Your task to perform on an android device: allow cookies in the chrome app Image 0: 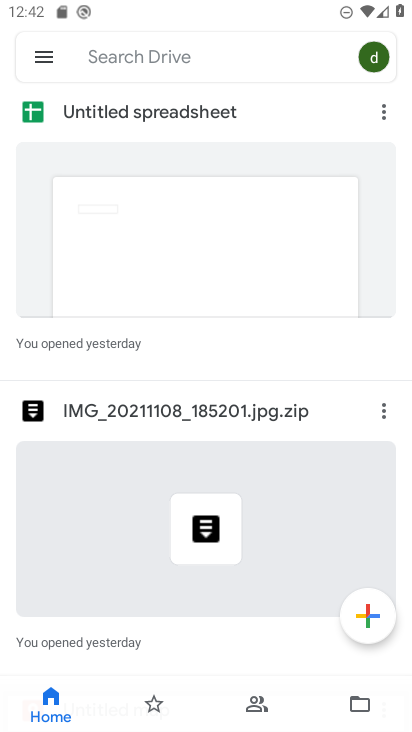
Step 0: press home button
Your task to perform on an android device: allow cookies in the chrome app Image 1: 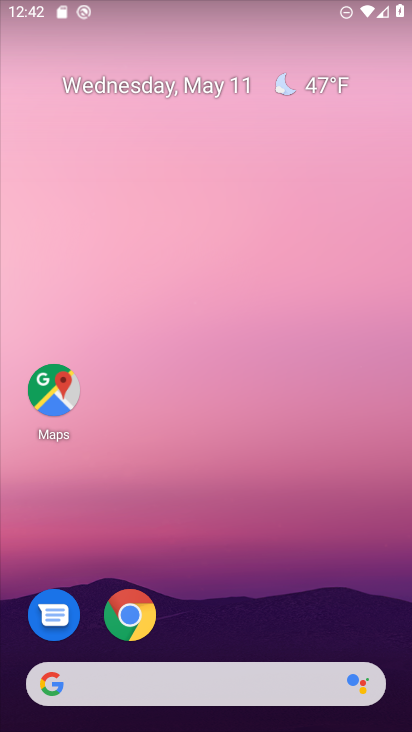
Step 1: drag from (334, 601) to (323, 207)
Your task to perform on an android device: allow cookies in the chrome app Image 2: 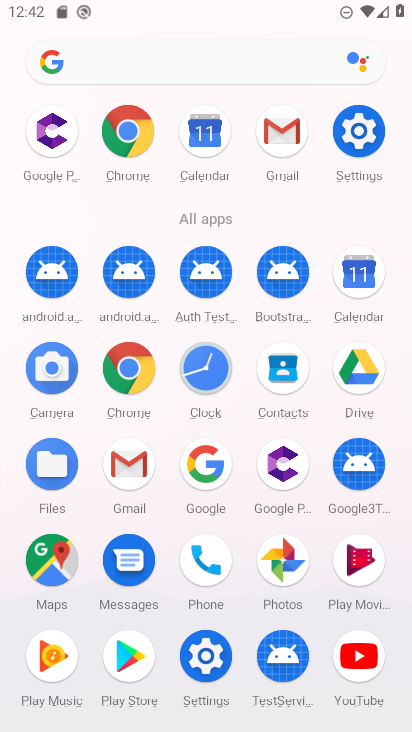
Step 2: click (128, 160)
Your task to perform on an android device: allow cookies in the chrome app Image 3: 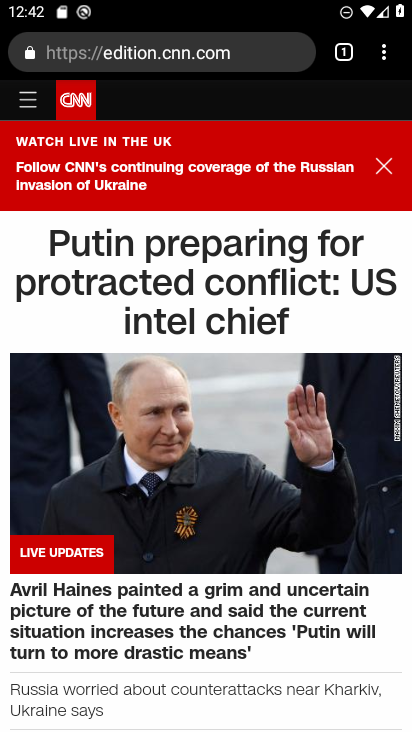
Step 3: drag from (387, 46) to (216, 592)
Your task to perform on an android device: allow cookies in the chrome app Image 4: 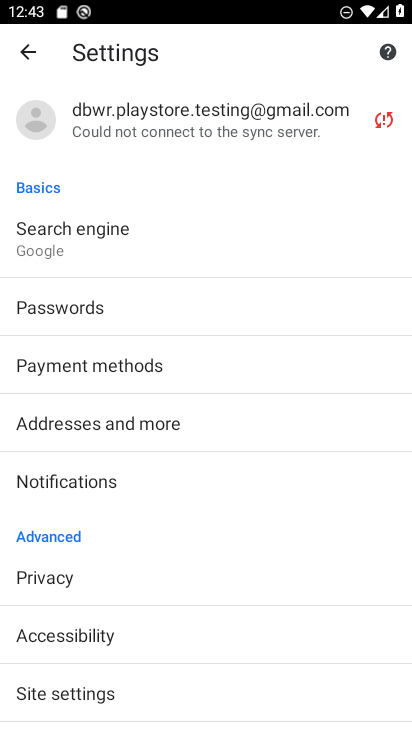
Step 4: drag from (212, 591) to (166, 254)
Your task to perform on an android device: allow cookies in the chrome app Image 5: 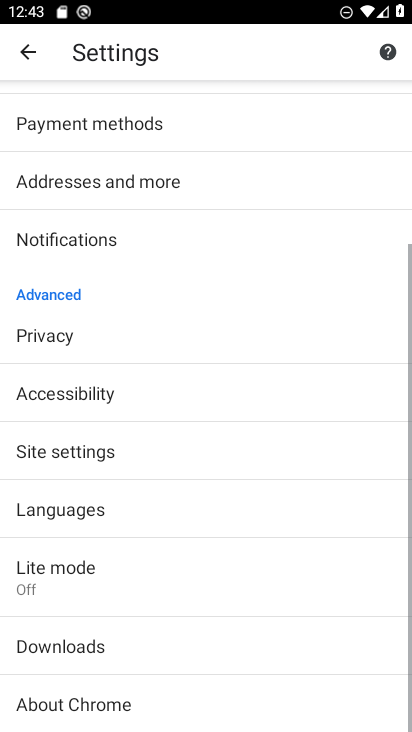
Step 5: click (76, 462)
Your task to perform on an android device: allow cookies in the chrome app Image 6: 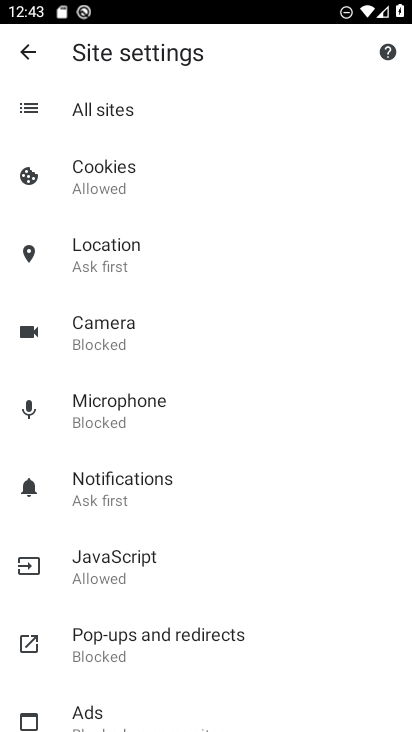
Step 6: click (132, 180)
Your task to perform on an android device: allow cookies in the chrome app Image 7: 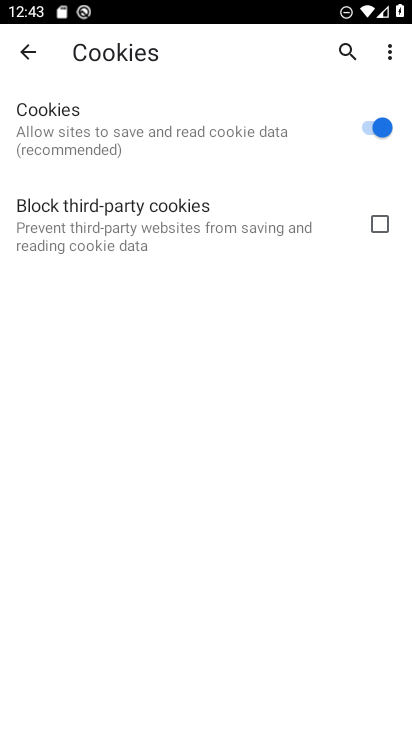
Step 7: task complete